Your task to perform on an android device: Open my contact list Image 0: 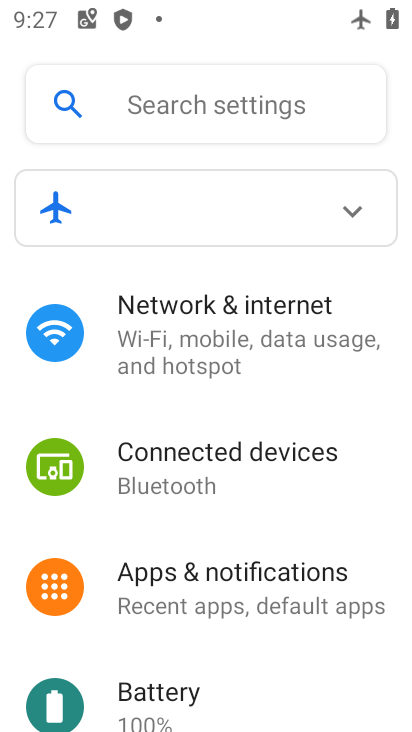
Step 0: press home button
Your task to perform on an android device: Open my contact list Image 1: 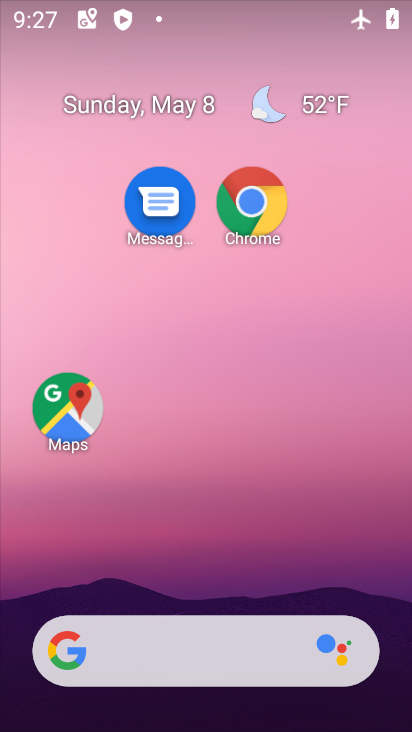
Step 1: drag from (194, 602) to (305, 8)
Your task to perform on an android device: Open my contact list Image 2: 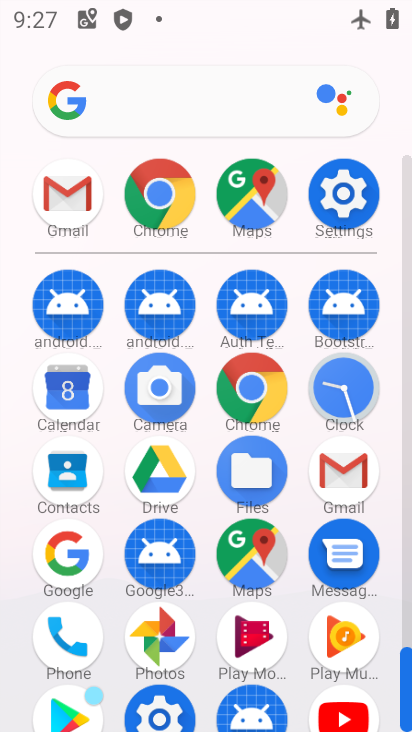
Step 2: click (56, 627)
Your task to perform on an android device: Open my contact list Image 3: 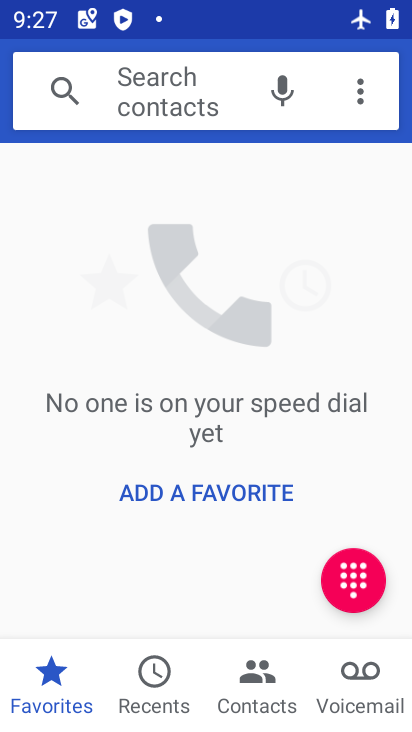
Step 3: click (260, 690)
Your task to perform on an android device: Open my contact list Image 4: 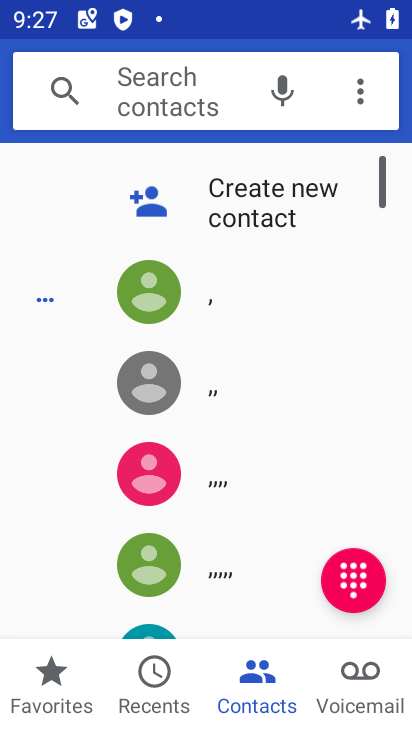
Step 4: task complete